Your task to perform on an android device: Turn off the flashlight Image 0: 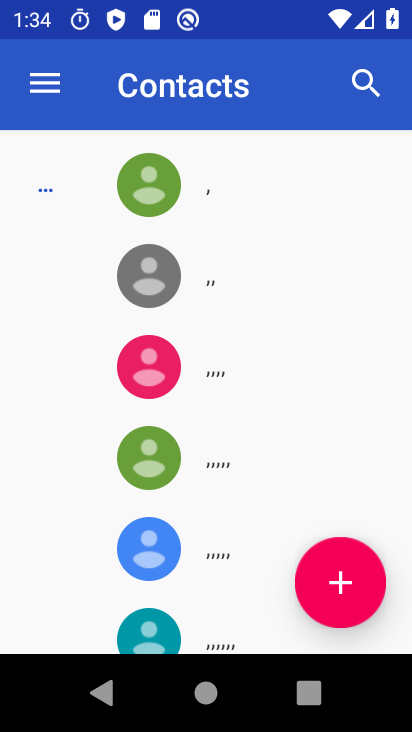
Step 0: press home button
Your task to perform on an android device: Turn off the flashlight Image 1: 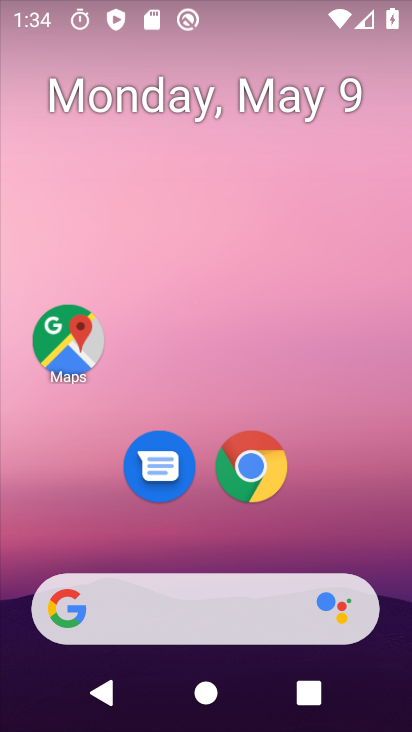
Step 1: task complete